Your task to perform on an android device: change timer sound Image 0: 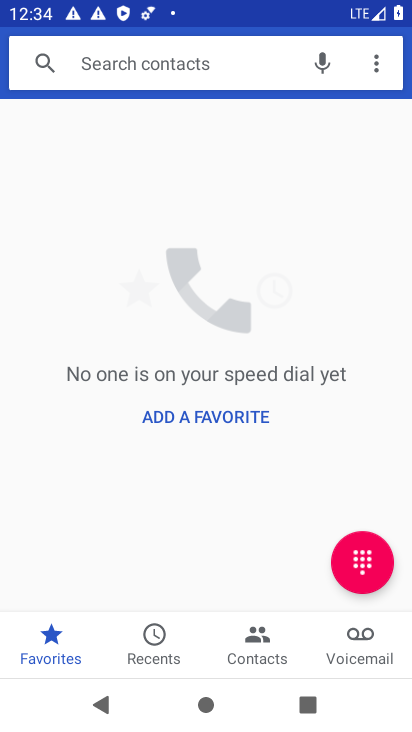
Step 0: press home button
Your task to perform on an android device: change timer sound Image 1: 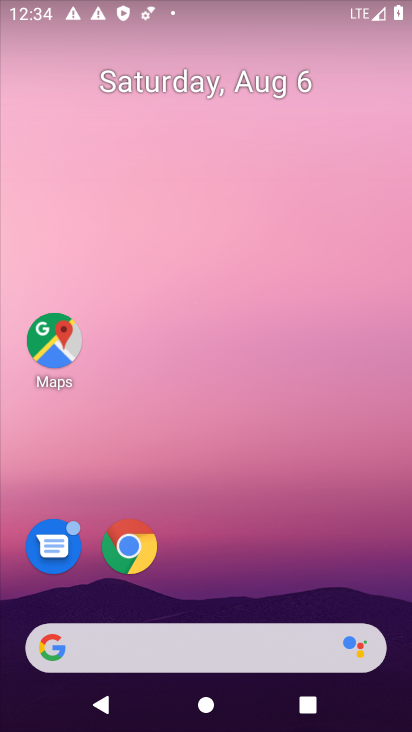
Step 1: drag from (362, 578) to (331, 118)
Your task to perform on an android device: change timer sound Image 2: 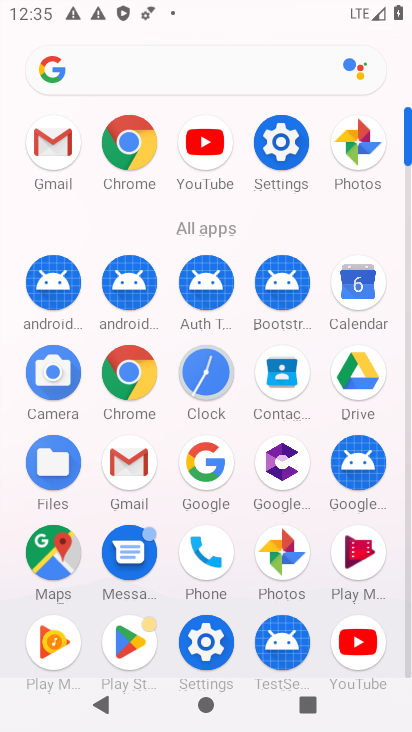
Step 2: click (206, 375)
Your task to perform on an android device: change timer sound Image 3: 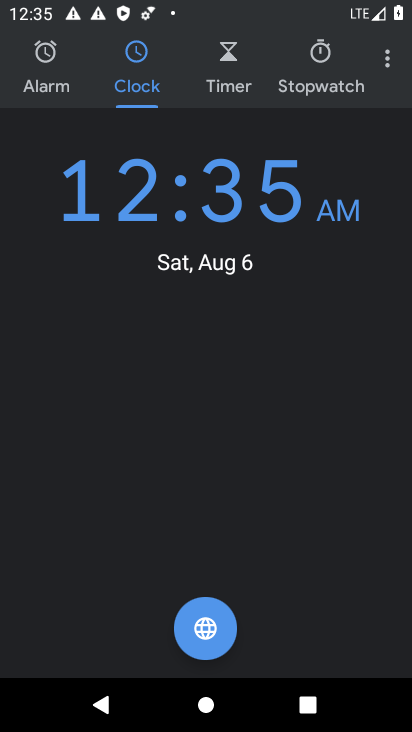
Step 3: click (387, 60)
Your task to perform on an android device: change timer sound Image 4: 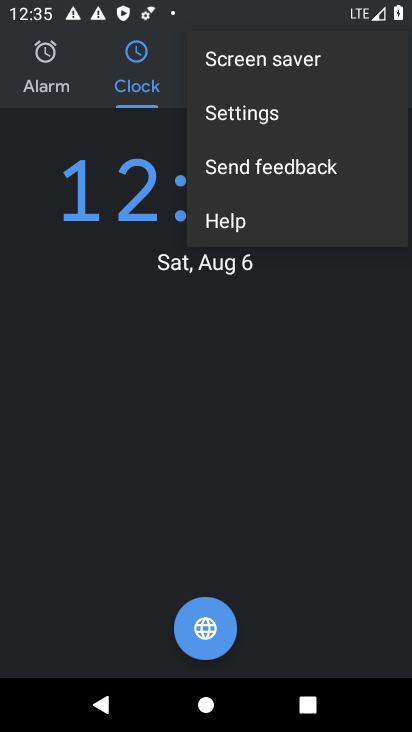
Step 4: click (235, 111)
Your task to perform on an android device: change timer sound Image 5: 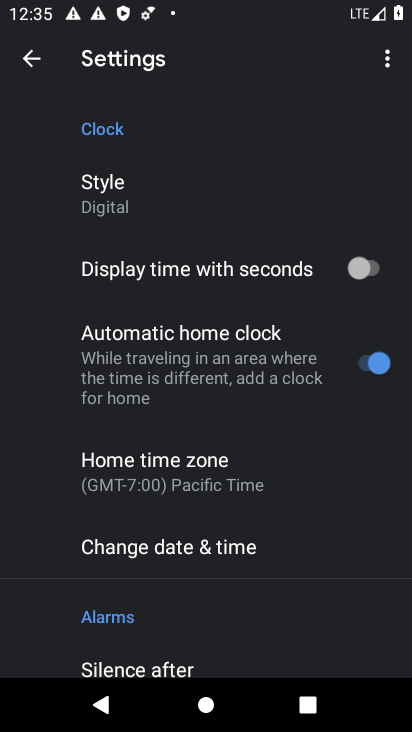
Step 5: drag from (299, 516) to (305, 51)
Your task to perform on an android device: change timer sound Image 6: 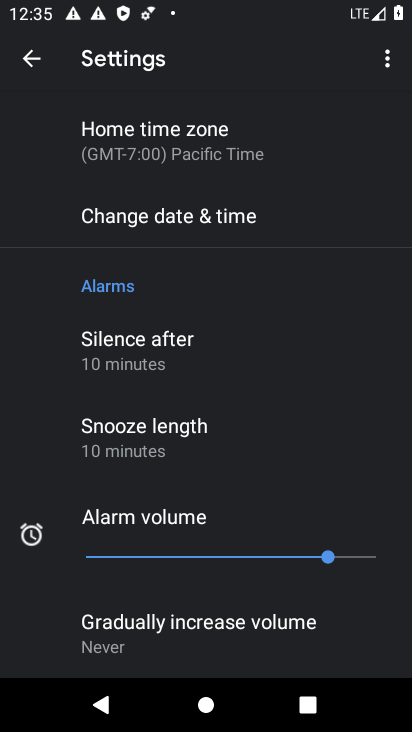
Step 6: drag from (245, 611) to (271, 204)
Your task to perform on an android device: change timer sound Image 7: 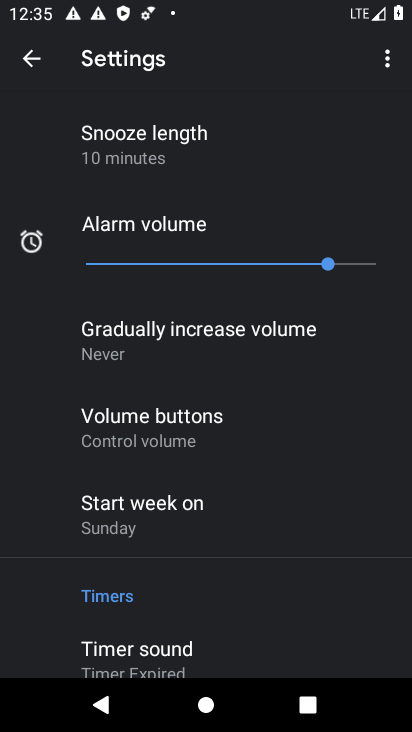
Step 7: drag from (244, 402) to (269, 102)
Your task to perform on an android device: change timer sound Image 8: 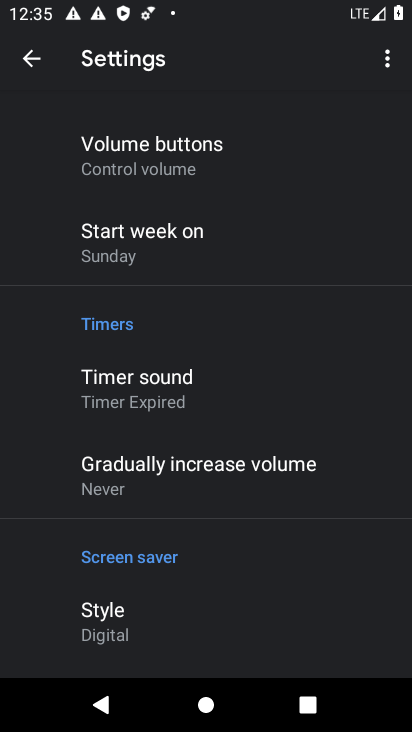
Step 8: click (131, 405)
Your task to perform on an android device: change timer sound Image 9: 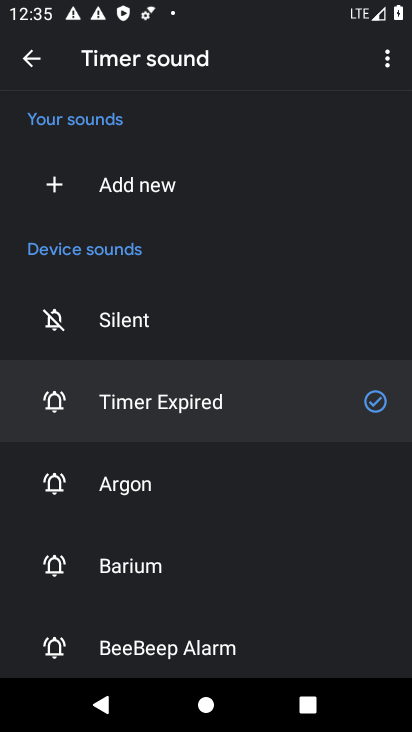
Step 9: drag from (288, 626) to (300, 183)
Your task to perform on an android device: change timer sound Image 10: 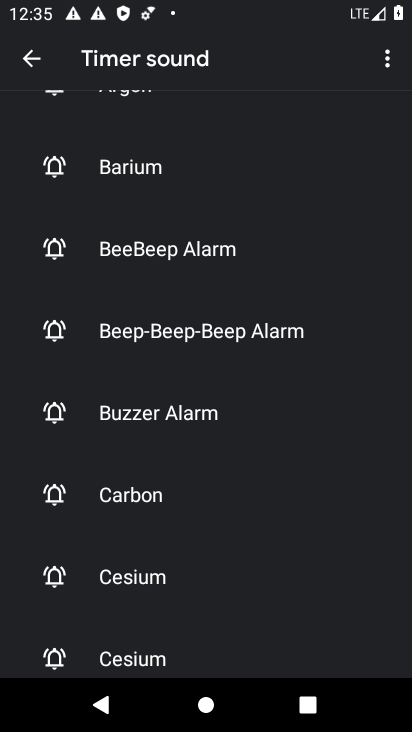
Step 10: click (153, 416)
Your task to perform on an android device: change timer sound Image 11: 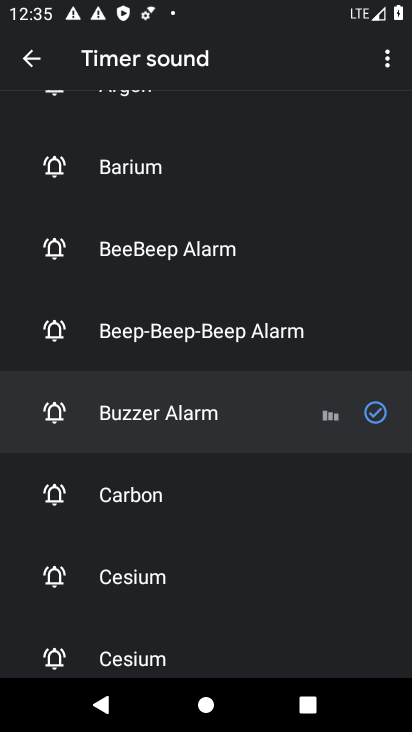
Step 11: task complete